Your task to perform on an android device: turn notification dots off Image 0: 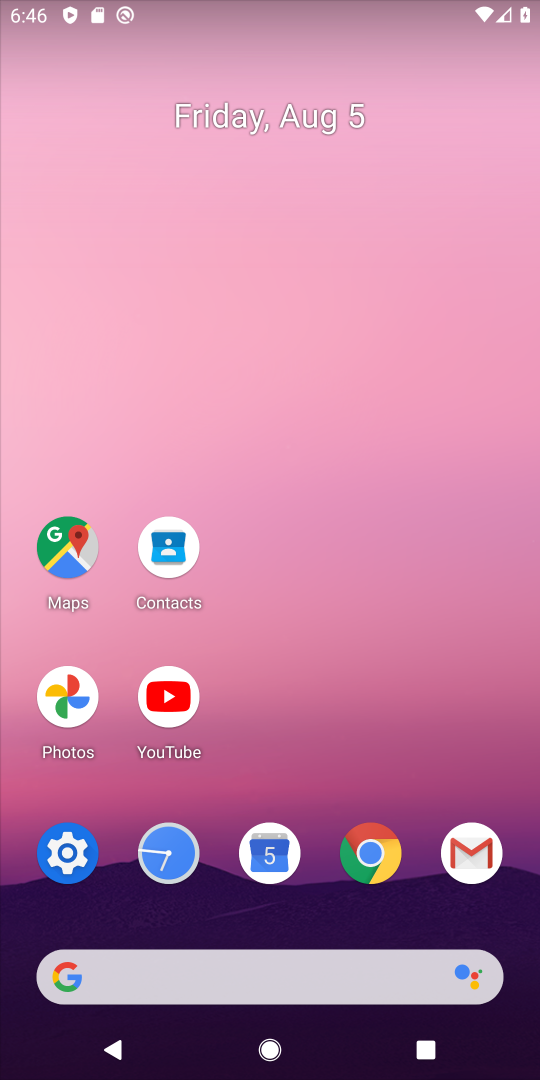
Step 0: click (66, 853)
Your task to perform on an android device: turn notification dots off Image 1: 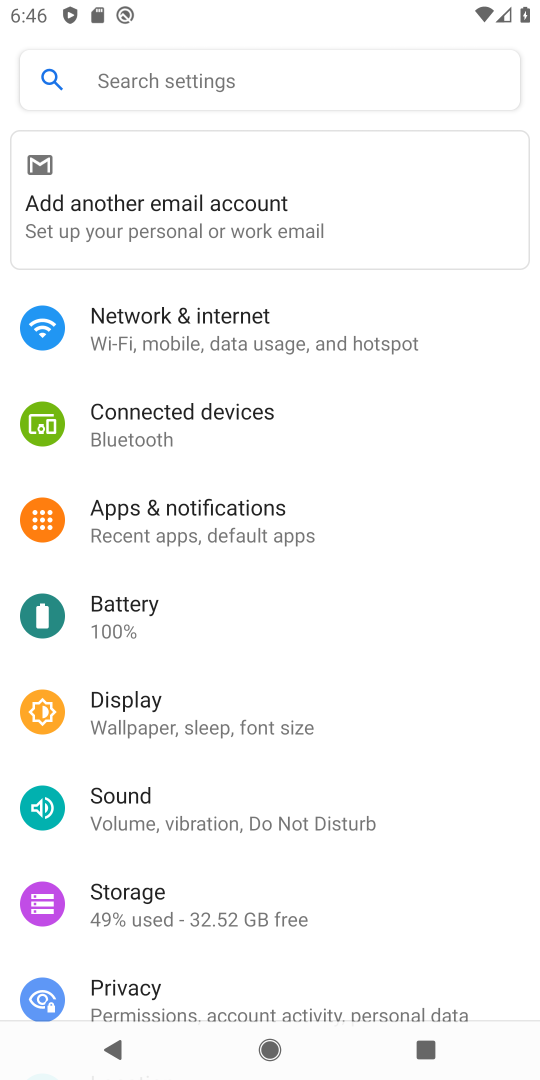
Step 1: click (166, 505)
Your task to perform on an android device: turn notification dots off Image 2: 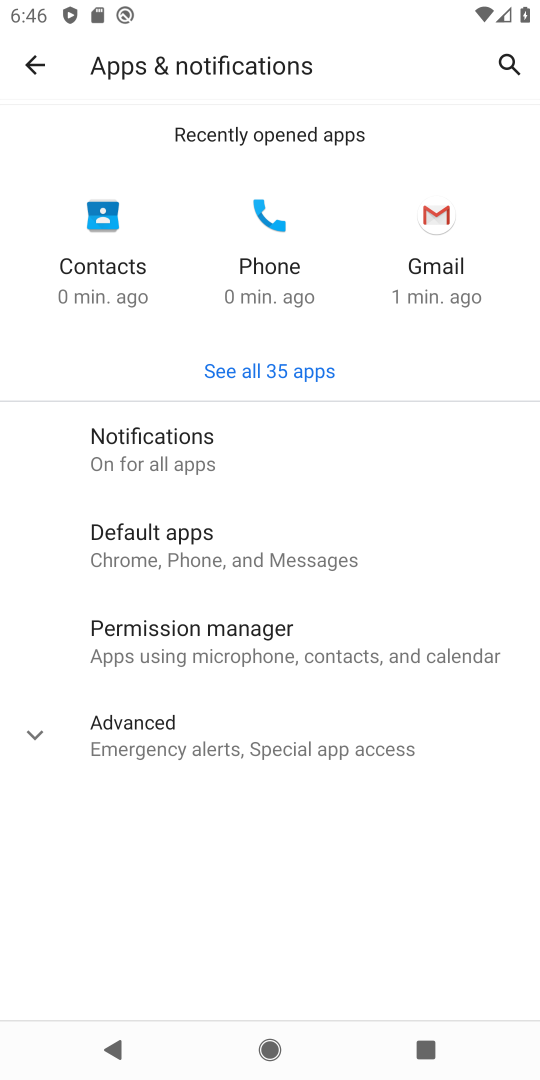
Step 2: click (170, 429)
Your task to perform on an android device: turn notification dots off Image 3: 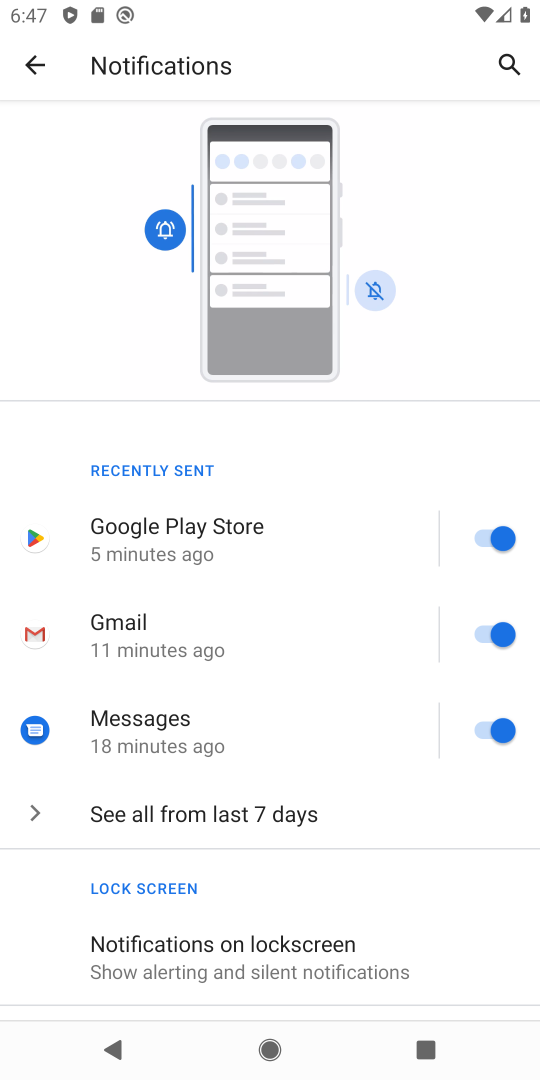
Step 3: drag from (306, 863) to (286, 361)
Your task to perform on an android device: turn notification dots off Image 4: 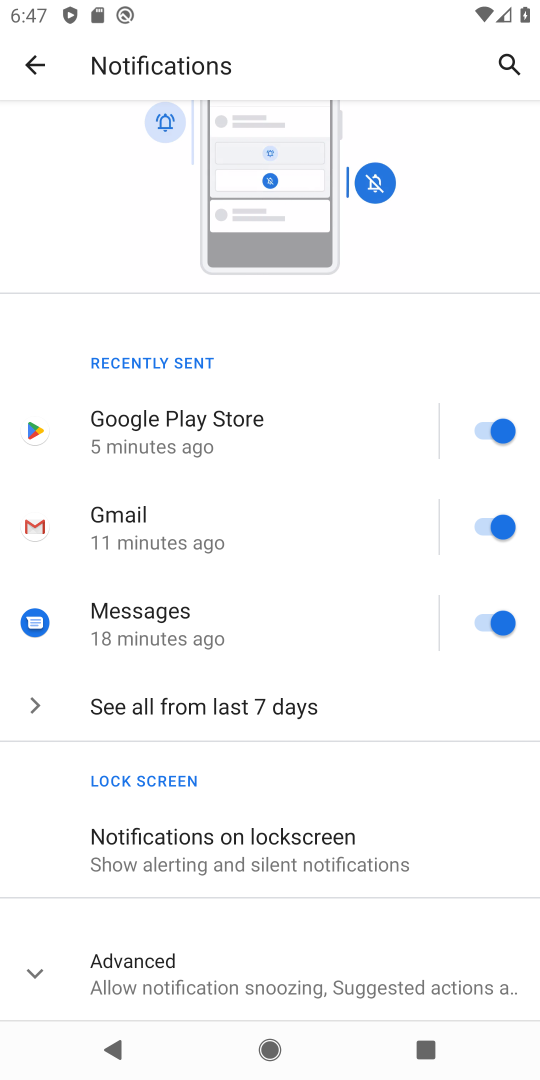
Step 4: click (32, 963)
Your task to perform on an android device: turn notification dots off Image 5: 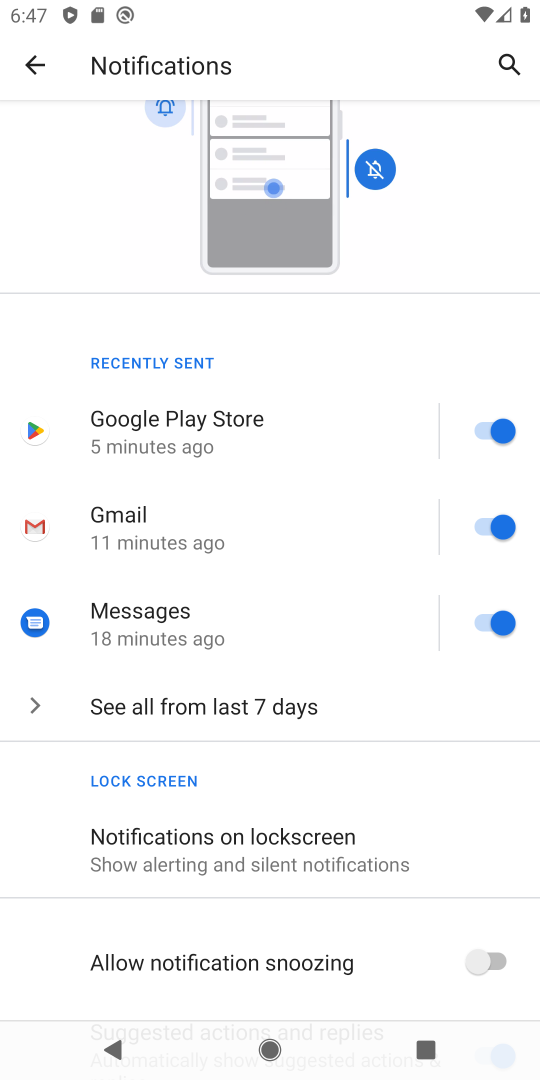
Step 5: drag from (393, 794) to (368, 139)
Your task to perform on an android device: turn notification dots off Image 6: 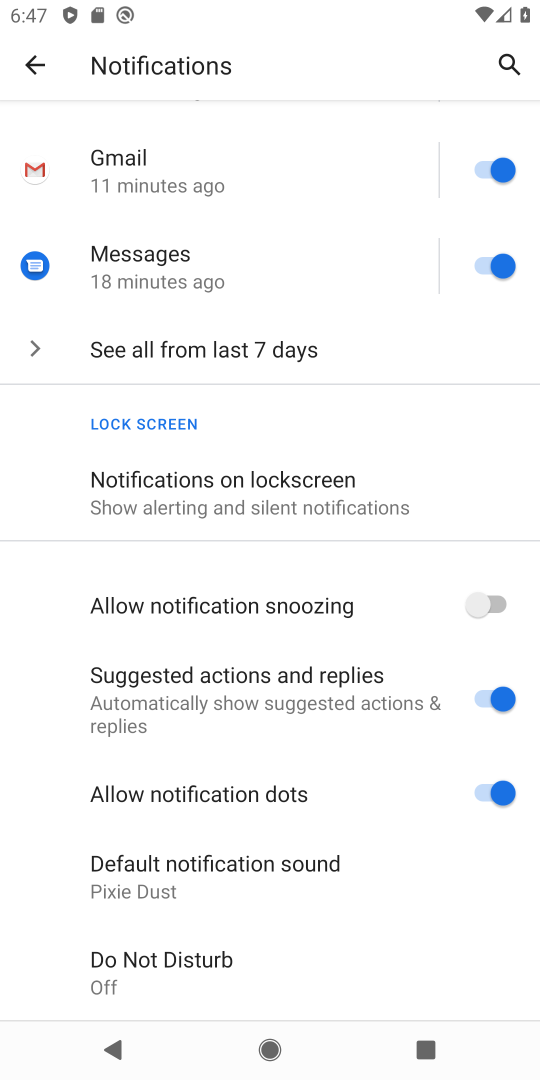
Step 6: click (500, 787)
Your task to perform on an android device: turn notification dots off Image 7: 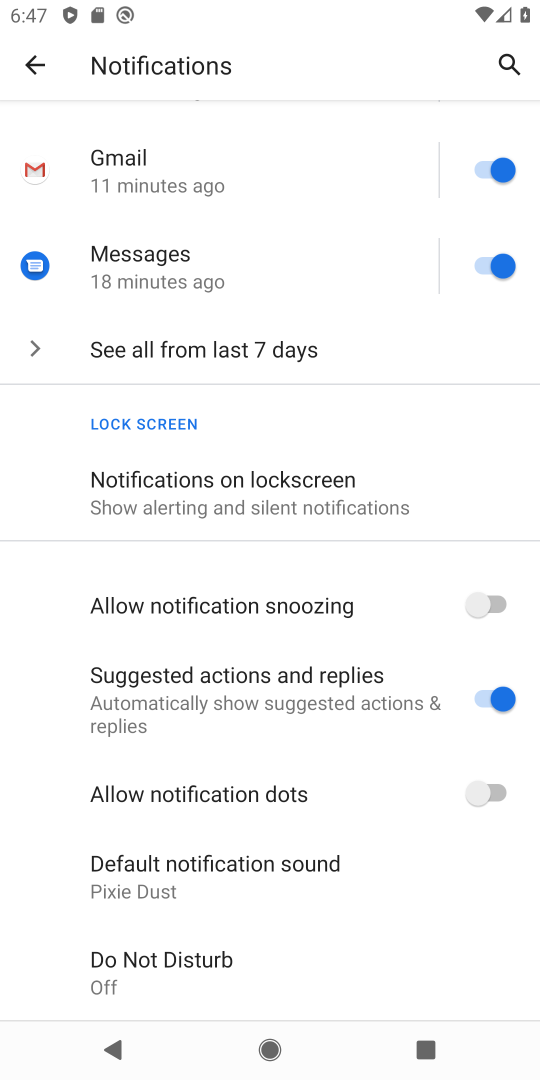
Step 7: task complete